Your task to perform on an android device: Open the phone app and click the voicemail tab. Image 0: 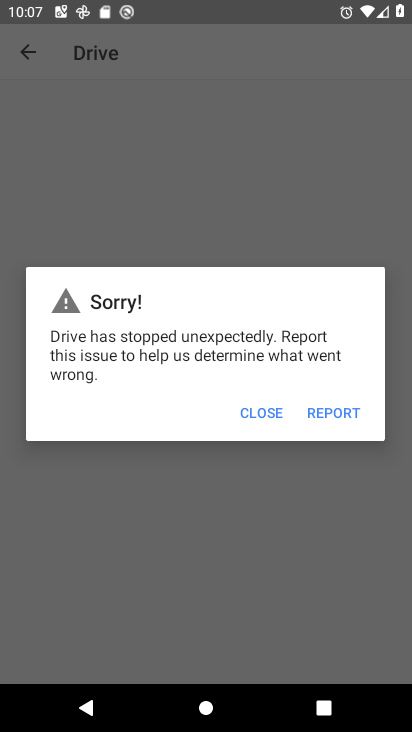
Step 0: press home button
Your task to perform on an android device: Open the phone app and click the voicemail tab. Image 1: 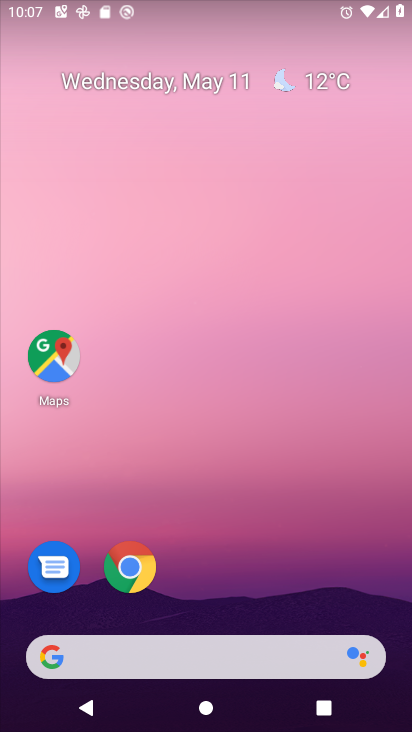
Step 1: drag from (242, 566) to (179, 71)
Your task to perform on an android device: Open the phone app and click the voicemail tab. Image 2: 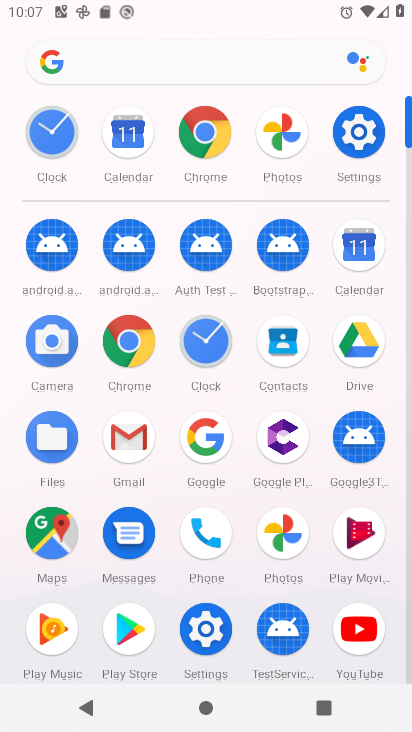
Step 2: click (204, 542)
Your task to perform on an android device: Open the phone app and click the voicemail tab. Image 3: 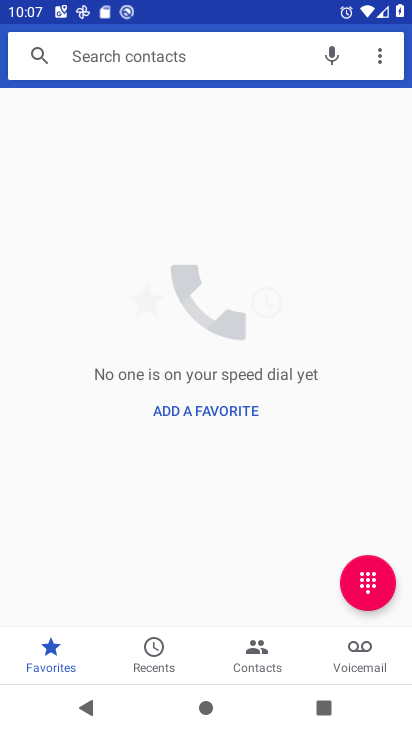
Step 3: click (363, 655)
Your task to perform on an android device: Open the phone app and click the voicemail tab. Image 4: 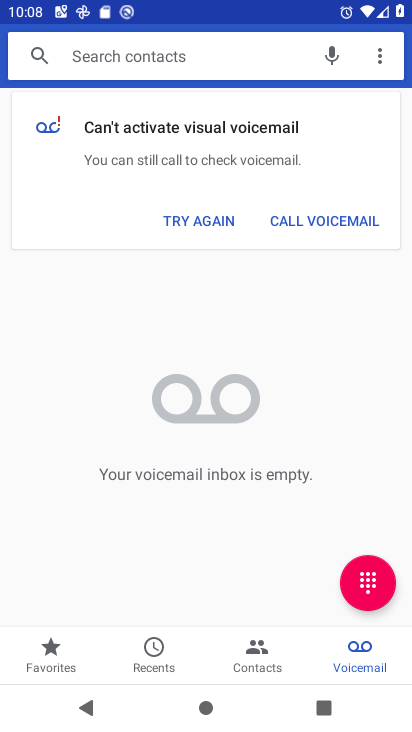
Step 4: task complete